Your task to perform on an android device: Open display settings Image 0: 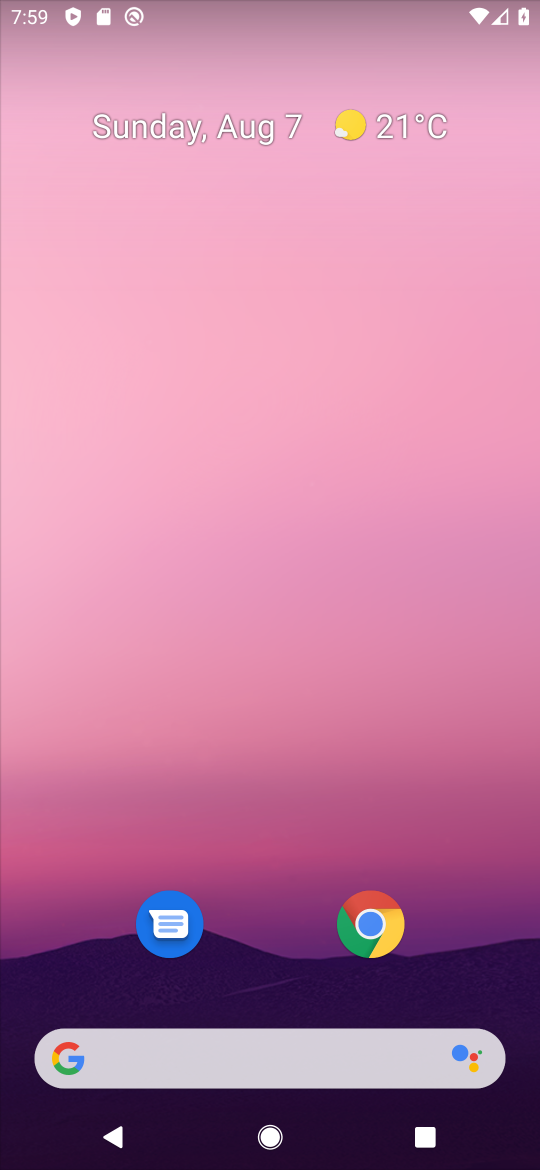
Step 0: click (280, 947)
Your task to perform on an android device: Open display settings Image 1: 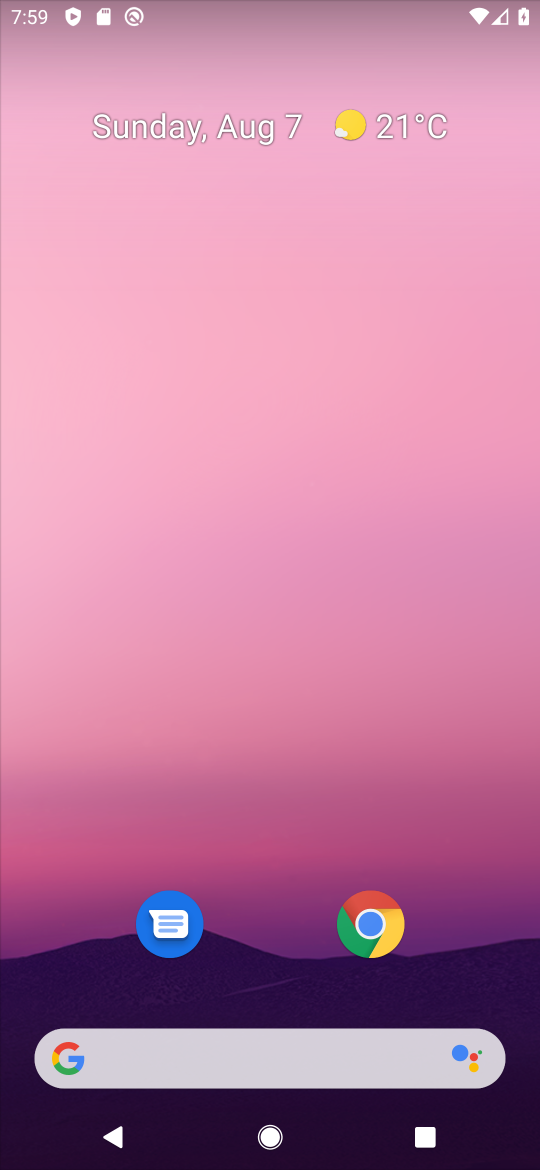
Step 1: drag from (271, 962) to (335, 0)
Your task to perform on an android device: Open display settings Image 2: 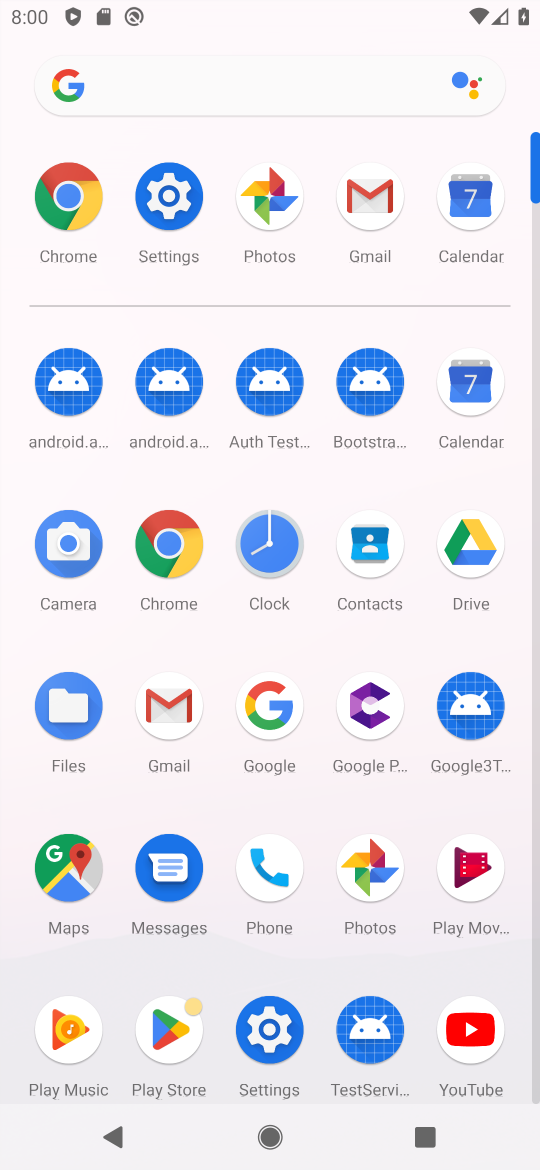
Step 2: click (175, 199)
Your task to perform on an android device: Open display settings Image 3: 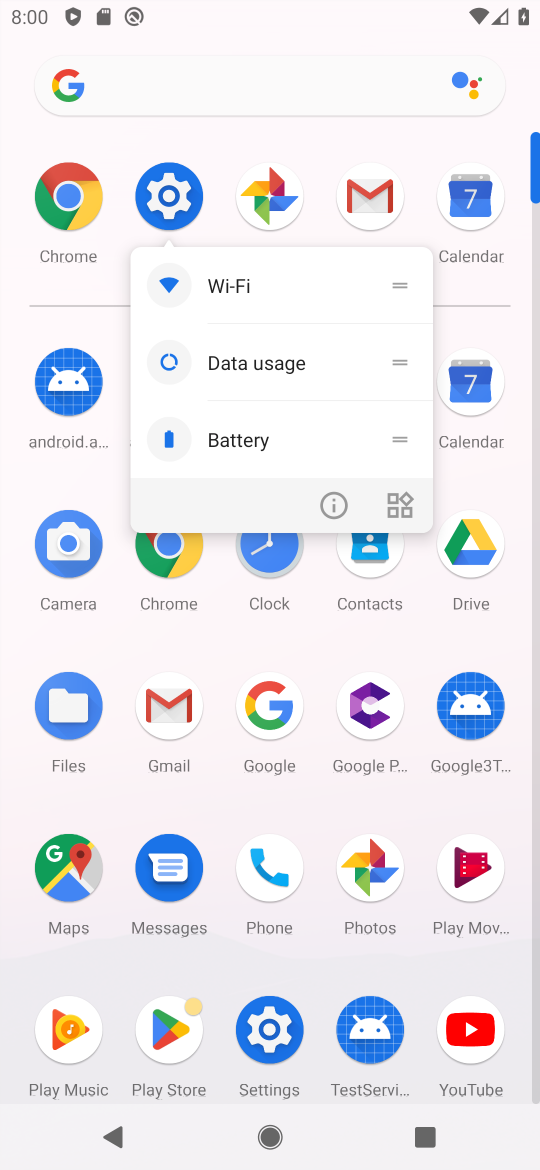
Step 3: click (175, 199)
Your task to perform on an android device: Open display settings Image 4: 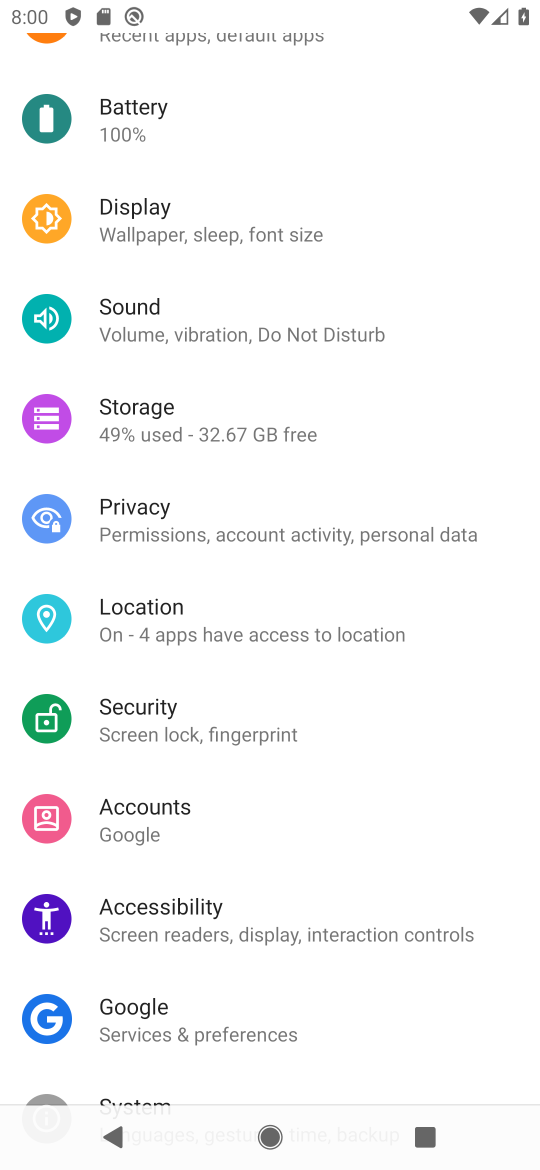
Step 4: click (175, 199)
Your task to perform on an android device: Open display settings Image 5: 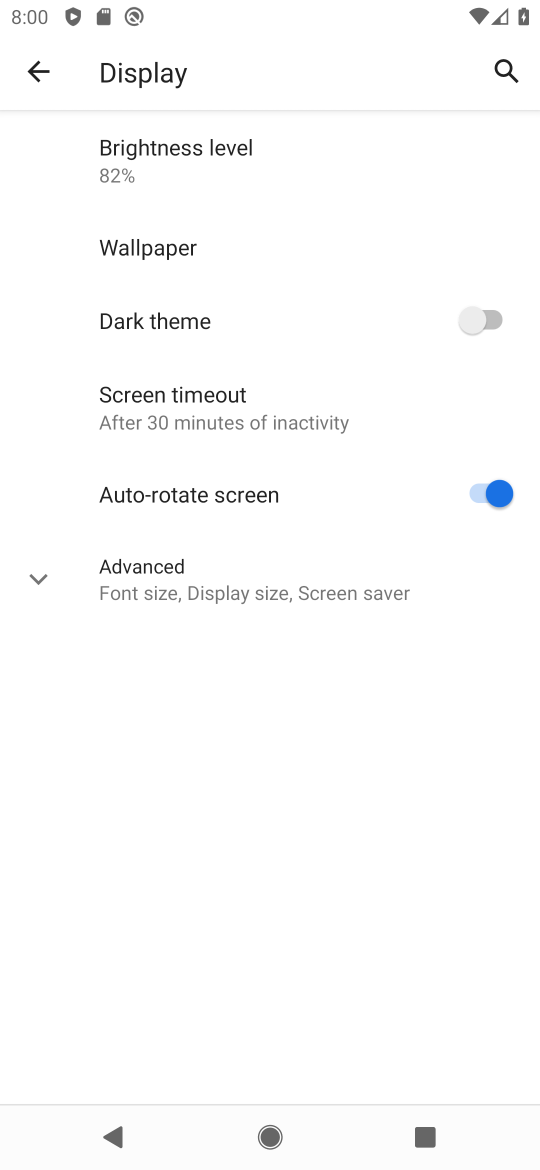
Step 5: click (41, 573)
Your task to perform on an android device: Open display settings Image 6: 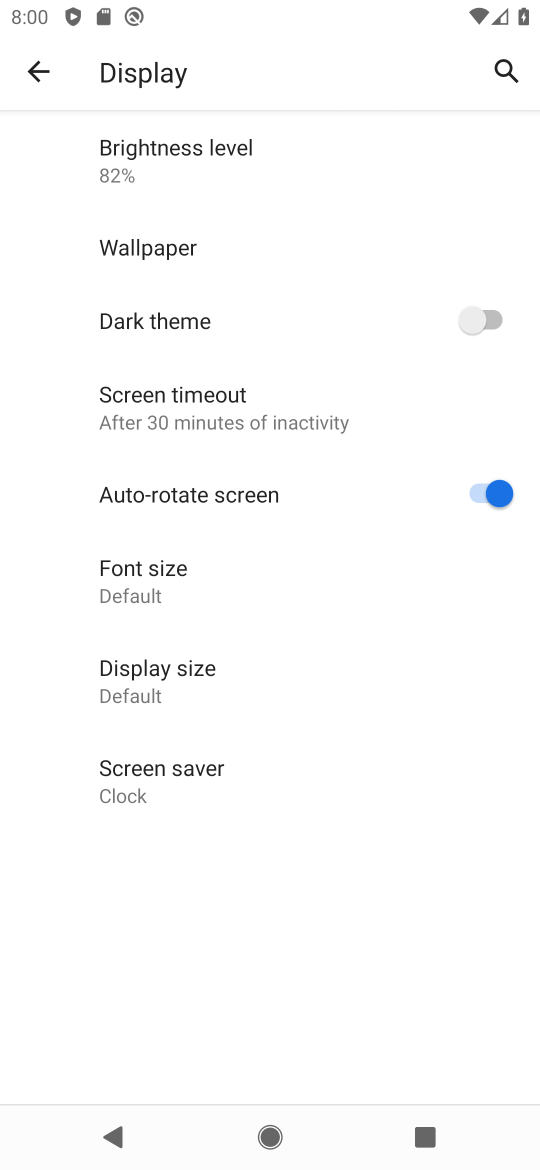
Step 6: task complete